Your task to perform on an android device: toggle location history Image 0: 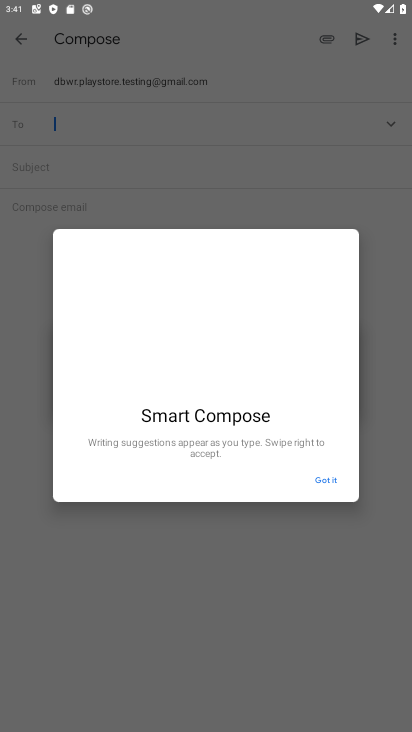
Step 0: press home button
Your task to perform on an android device: toggle location history Image 1: 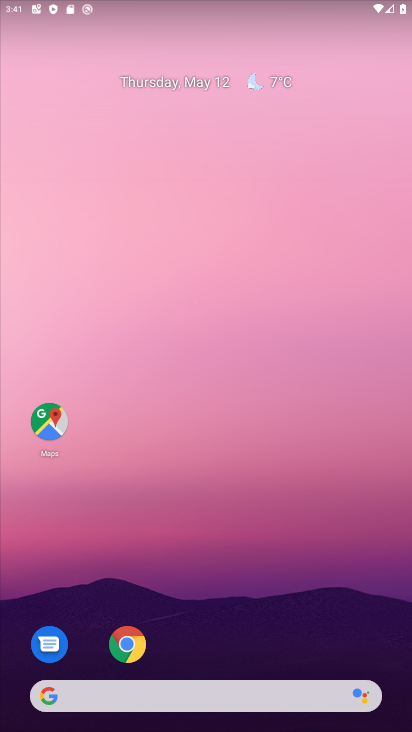
Step 1: drag from (227, 657) to (232, 182)
Your task to perform on an android device: toggle location history Image 2: 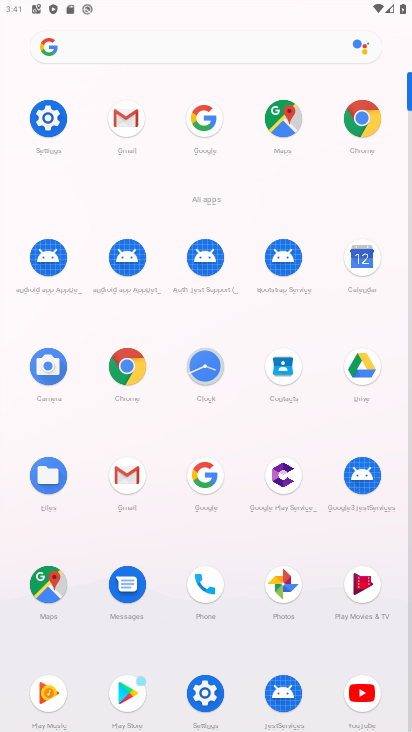
Step 2: click (202, 690)
Your task to perform on an android device: toggle location history Image 3: 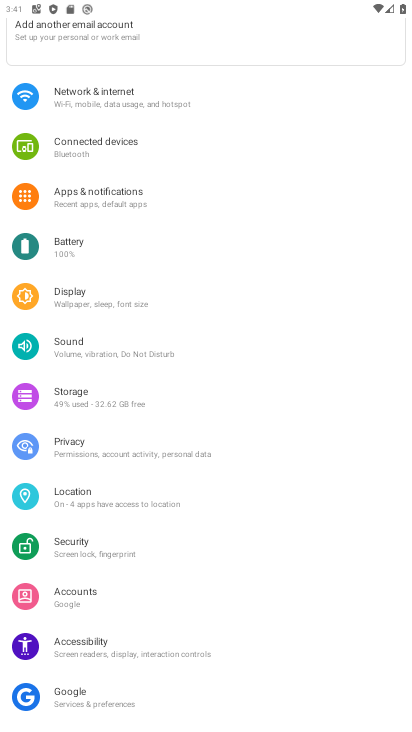
Step 3: click (107, 495)
Your task to perform on an android device: toggle location history Image 4: 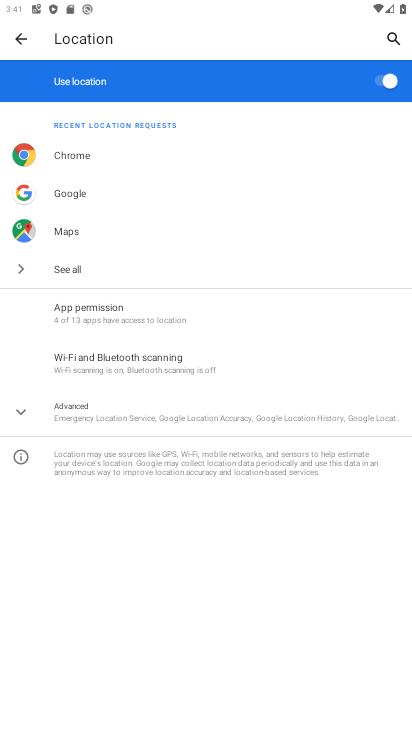
Step 4: click (28, 406)
Your task to perform on an android device: toggle location history Image 5: 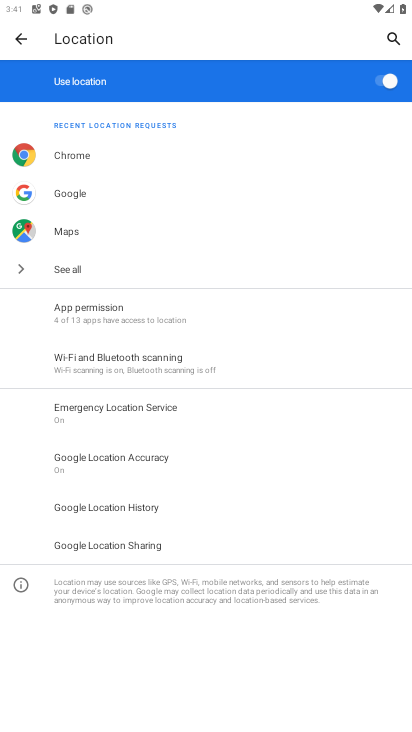
Step 5: click (166, 505)
Your task to perform on an android device: toggle location history Image 6: 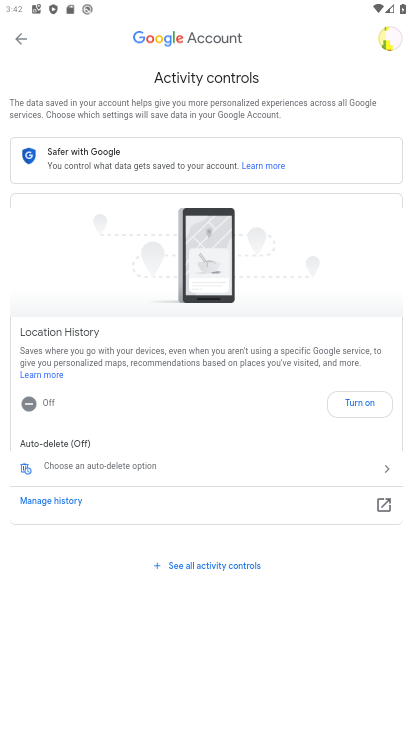
Step 6: click (364, 407)
Your task to perform on an android device: toggle location history Image 7: 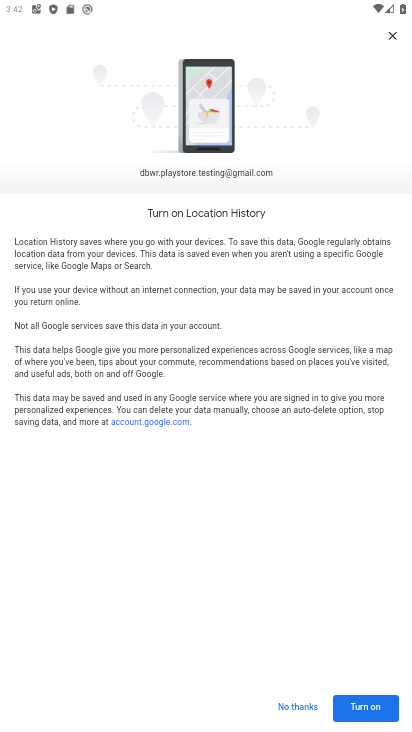
Step 7: click (364, 706)
Your task to perform on an android device: toggle location history Image 8: 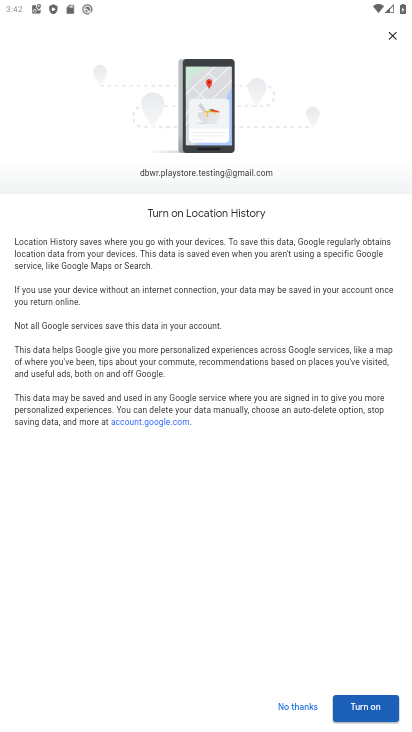
Step 8: task complete